Your task to perform on an android device: turn pop-ups off in chrome Image 0: 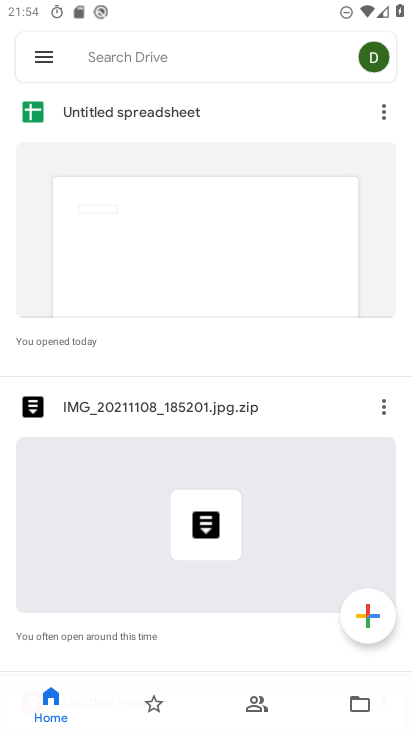
Step 0: press home button
Your task to perform on an android device: turn pop-ups off in chrome Image 1: 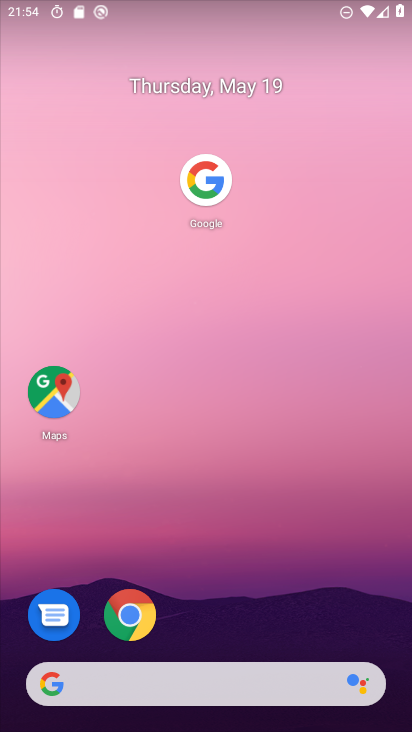
Step 1: click (129, 614)
Your task to perform on an android device: turn pop-ups off in chrome Image 2: 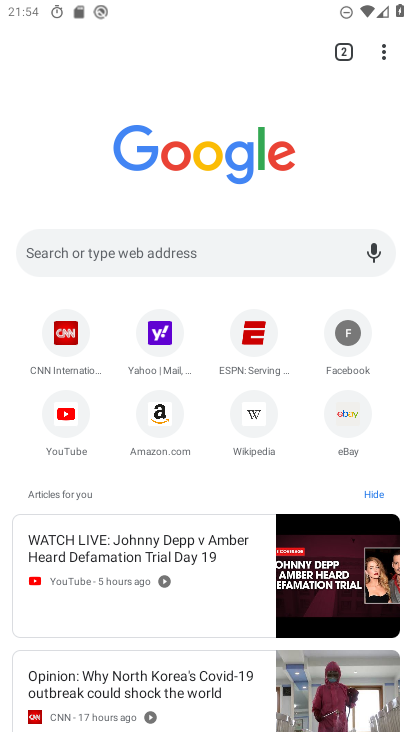
Step 2: click (372, 49)
Your task to perform on an android device: turn pop-ups off in chrome Image 3: 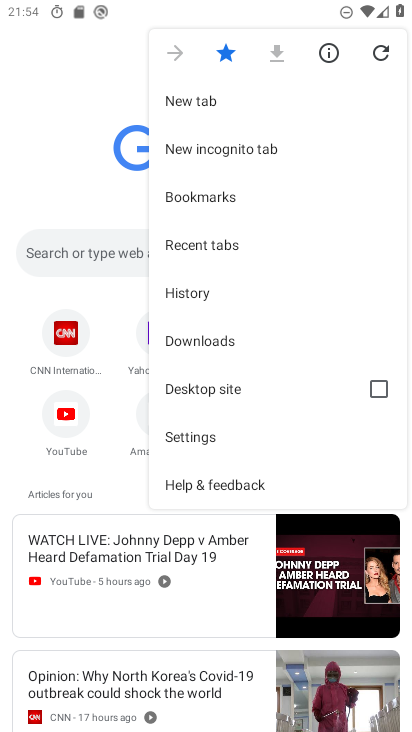
Step 3: click (240, 431)
Your task to perform on an android device: turn pop-ups off in chrome Image 4: 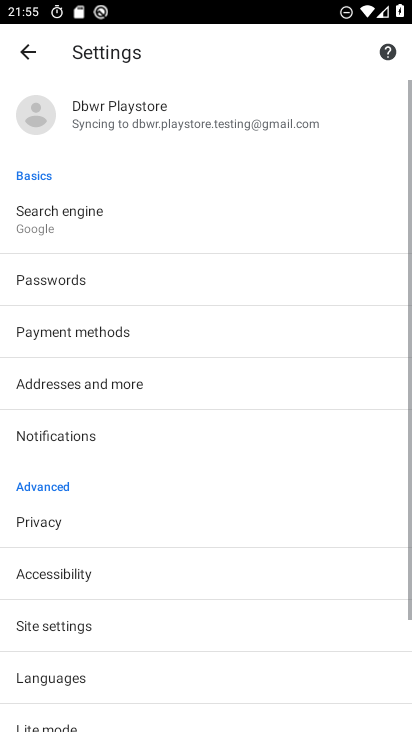
Step 4: click (41, 633)
Your task to perform on an android device: turn pop-ups off in chrome Image 5: 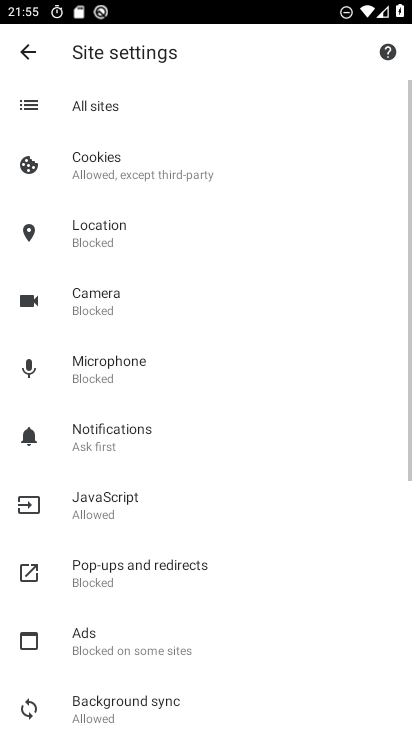
Step 5: click (111, 566)
Your task to perform on an android device: turn pop-ups off in chrome Image 6: 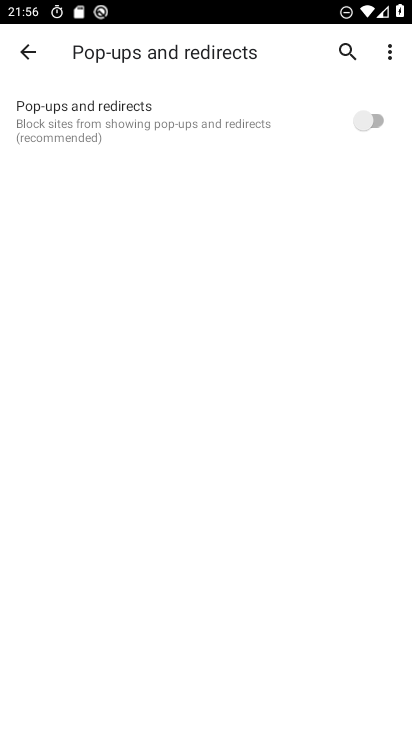
Step 6: task complete